Your task to perform on an android device: View the shopping cart on ebay. Add "beats solo 3" to the cart on ebay, then select checkout. Image 0: 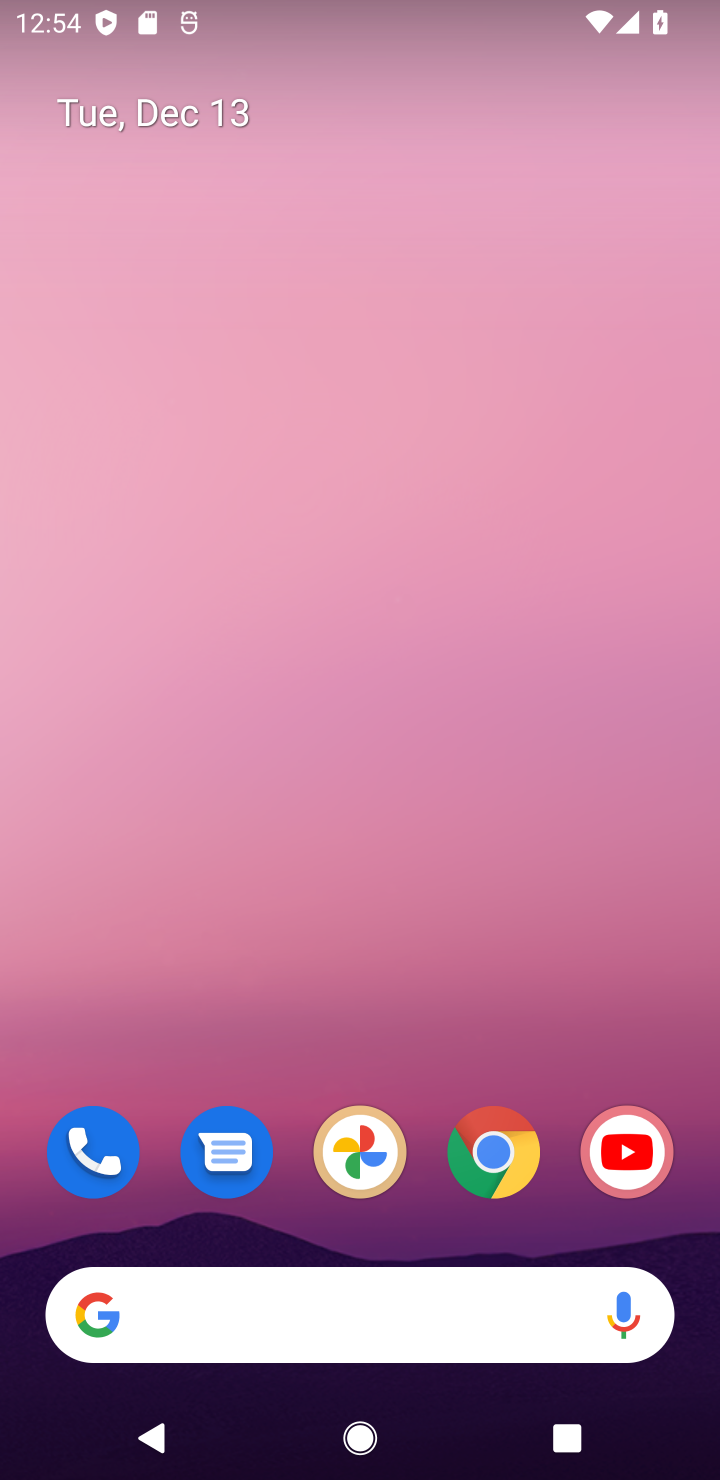
Step 0: drag from (277, 904) to (367, 278)
Your task to perform on an android device: View the shopping cart on ebay. Add "beats solo 3" to the cart on ebay, then select checkout. Image 1: 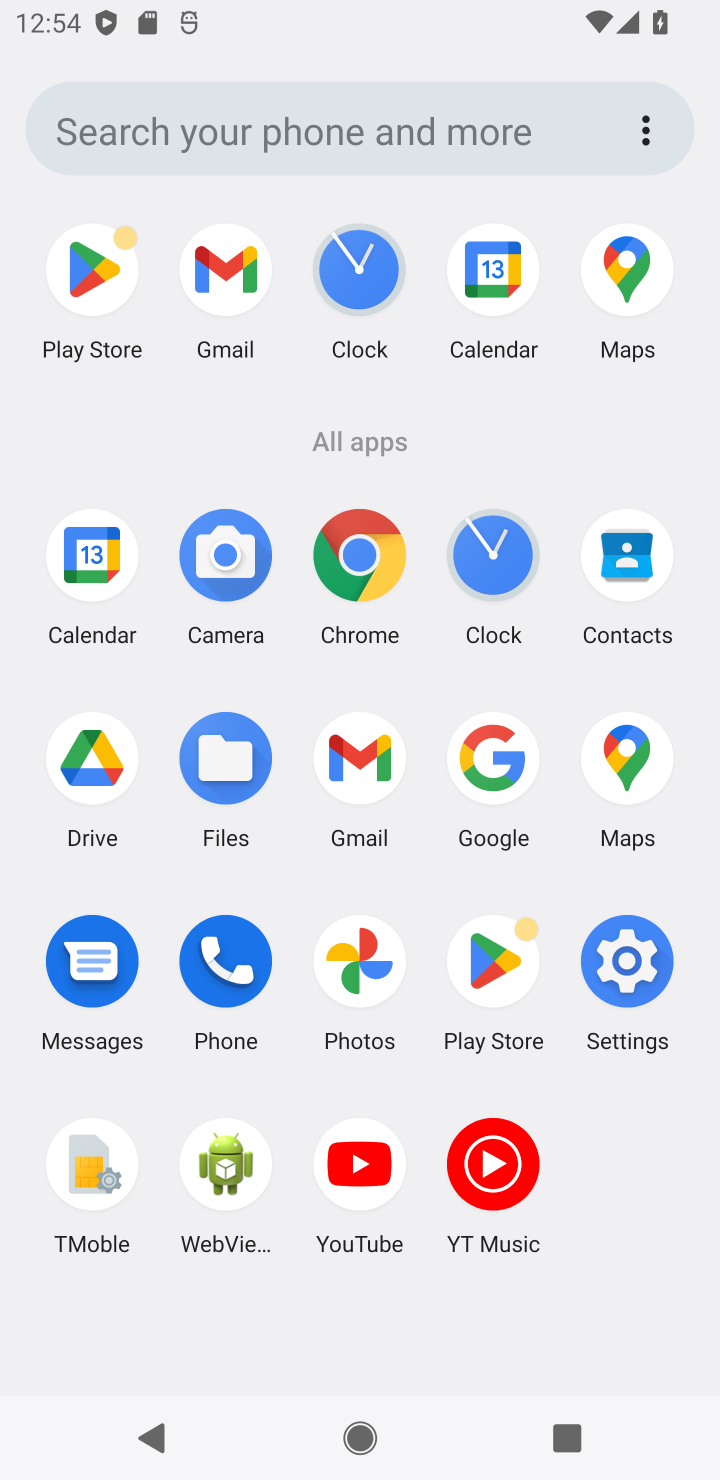
Step 1: click (473, 776)
Your task to perform on an android device: View the shopping cart on ebay. Add "beats solo 3" to the cart on ebay, then select checkout. Image 2: 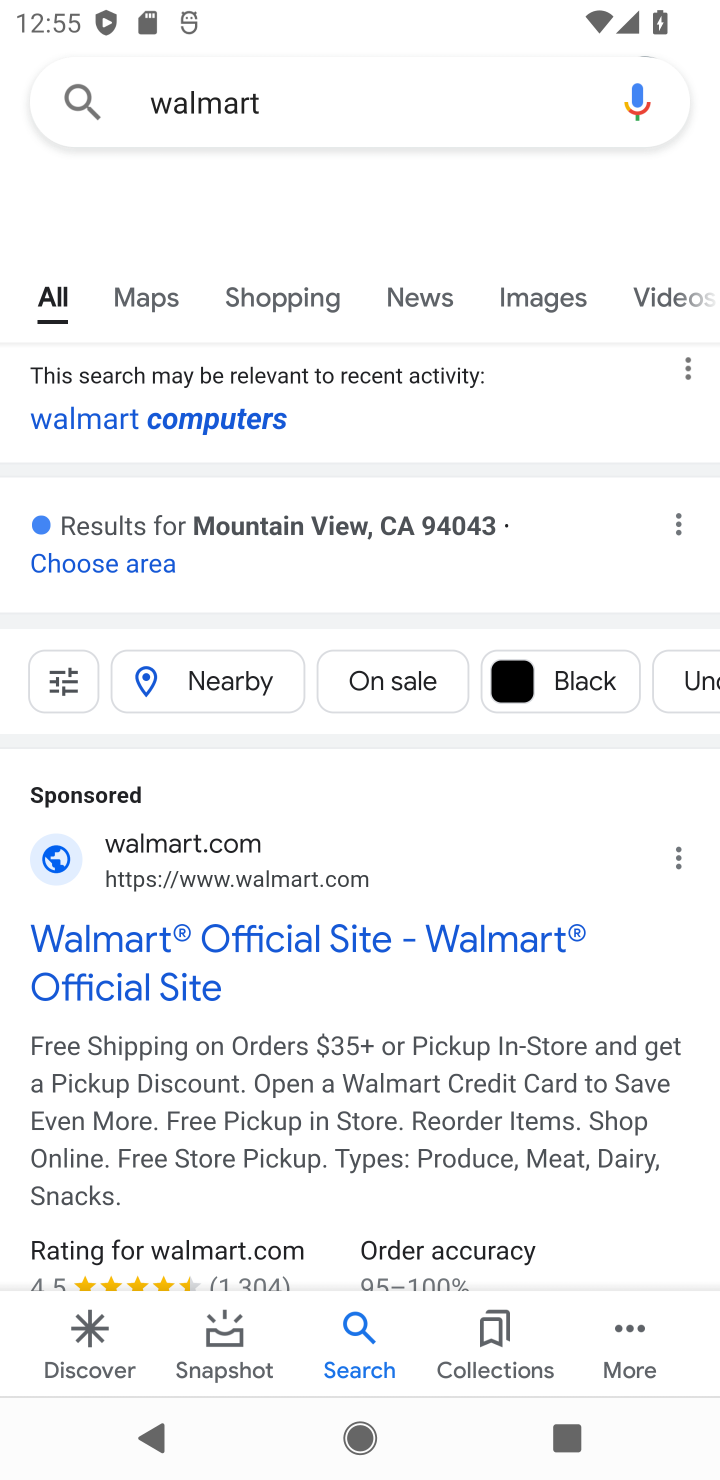
Step 2: click (217, 92)
Your task to perform on an android device: View the shopping cart on ebay. Add "beats solo 3" to the cart on ebay, then select checkout. Image 3: 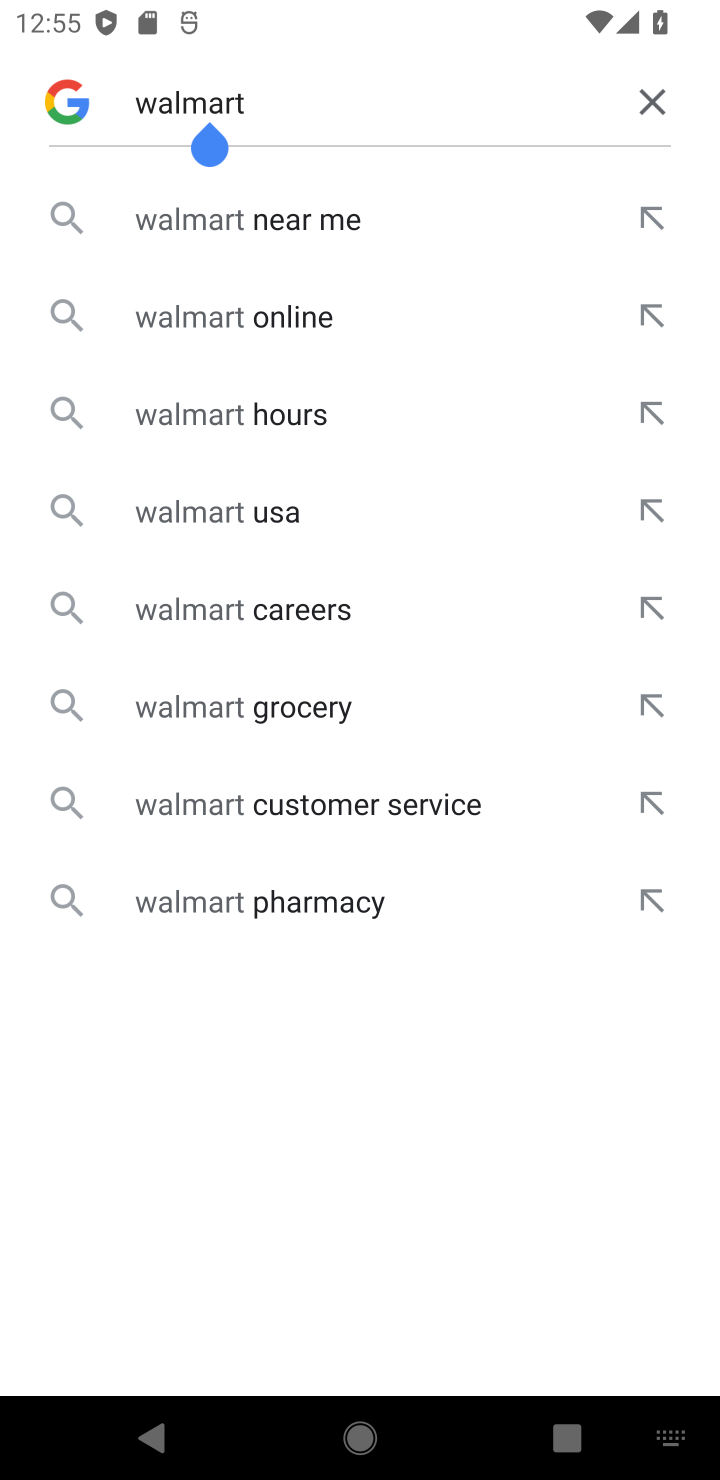
Step 3: click (651, 105)
Your task to perform on an android device: View the shopping cart on ebay. Add "beats solo 3" to the cart on ebay, then select checkout. Image 4: 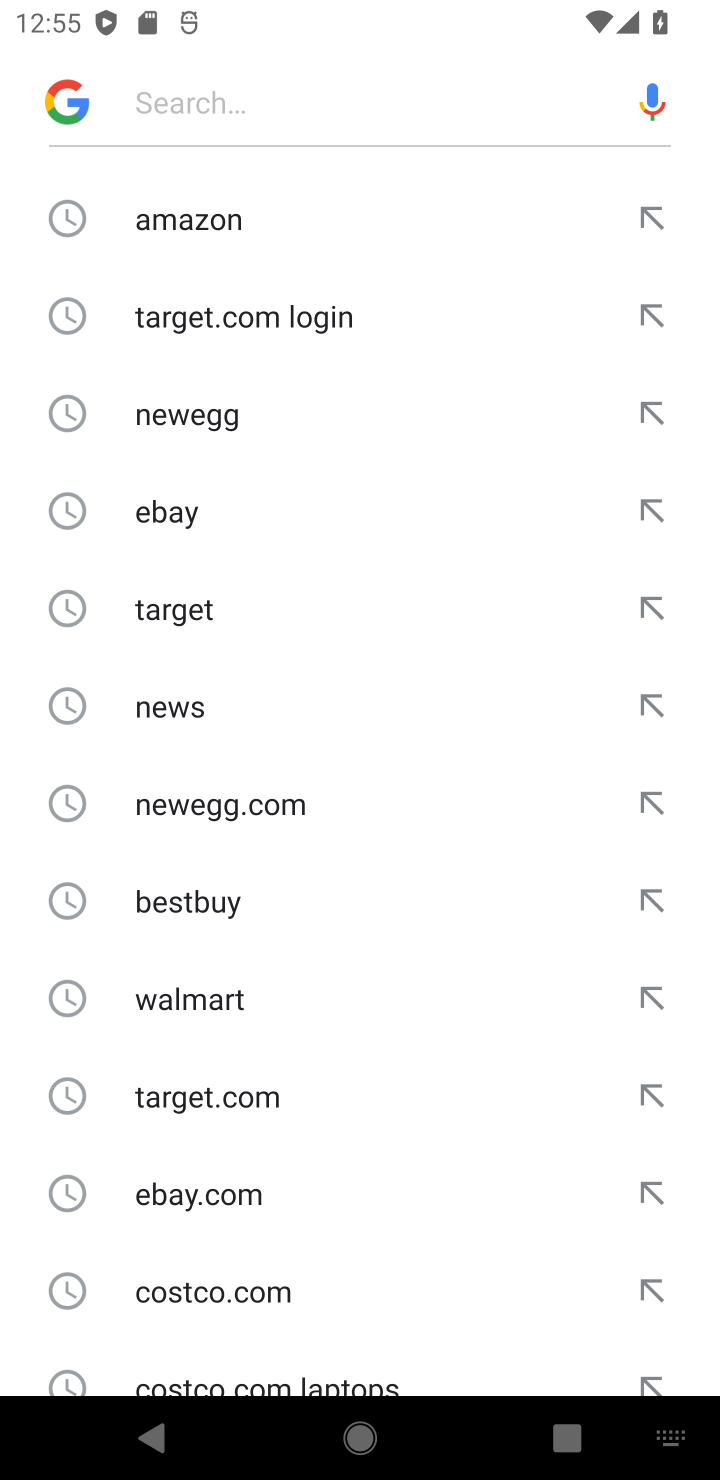
Step 4: click (161, 514)
Your task to perform on an android device: View the shopping cart on ebay. Add "beats solo 3" to the cart on ebay, then select checkout. Image 5: 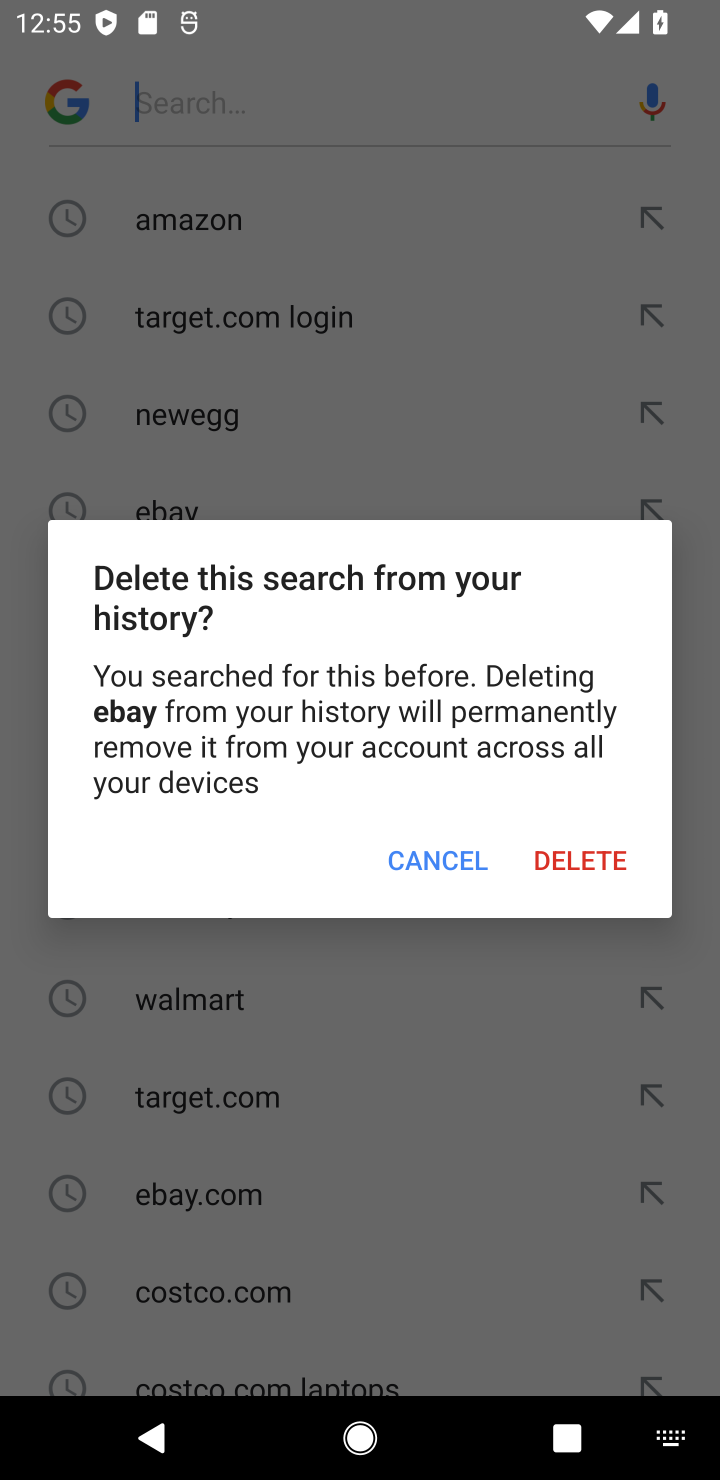
Step 5: click (434, 869)
Your task to perform on an android device: View the shopping cart on ebay. Add "beats solo 3" to the cart on ebay, then select checkout. Image 6: 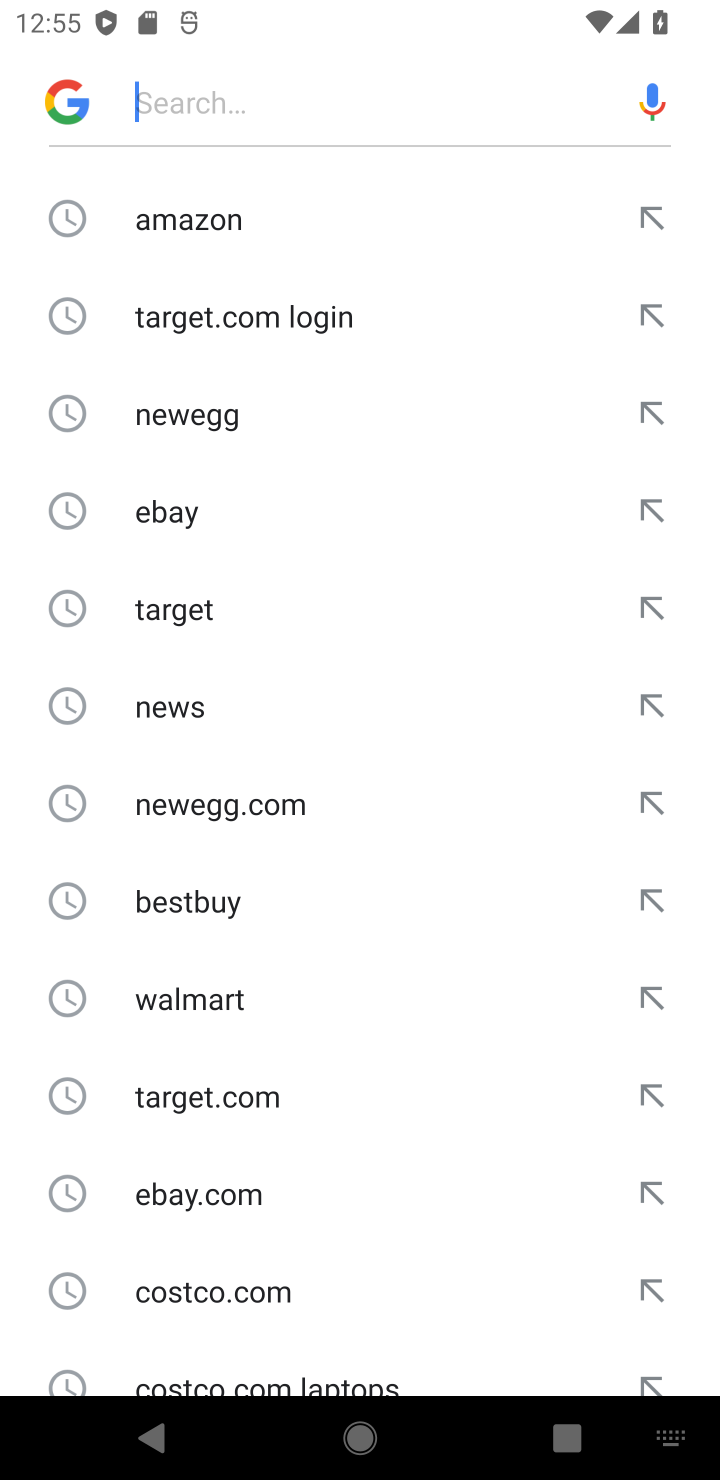
Step 6: click (191, 510)
Your task to perform on an android device: View the shopping cart on ebay. Add "beats solo 3" to the cart on ebay, then select checkout. Image 7: 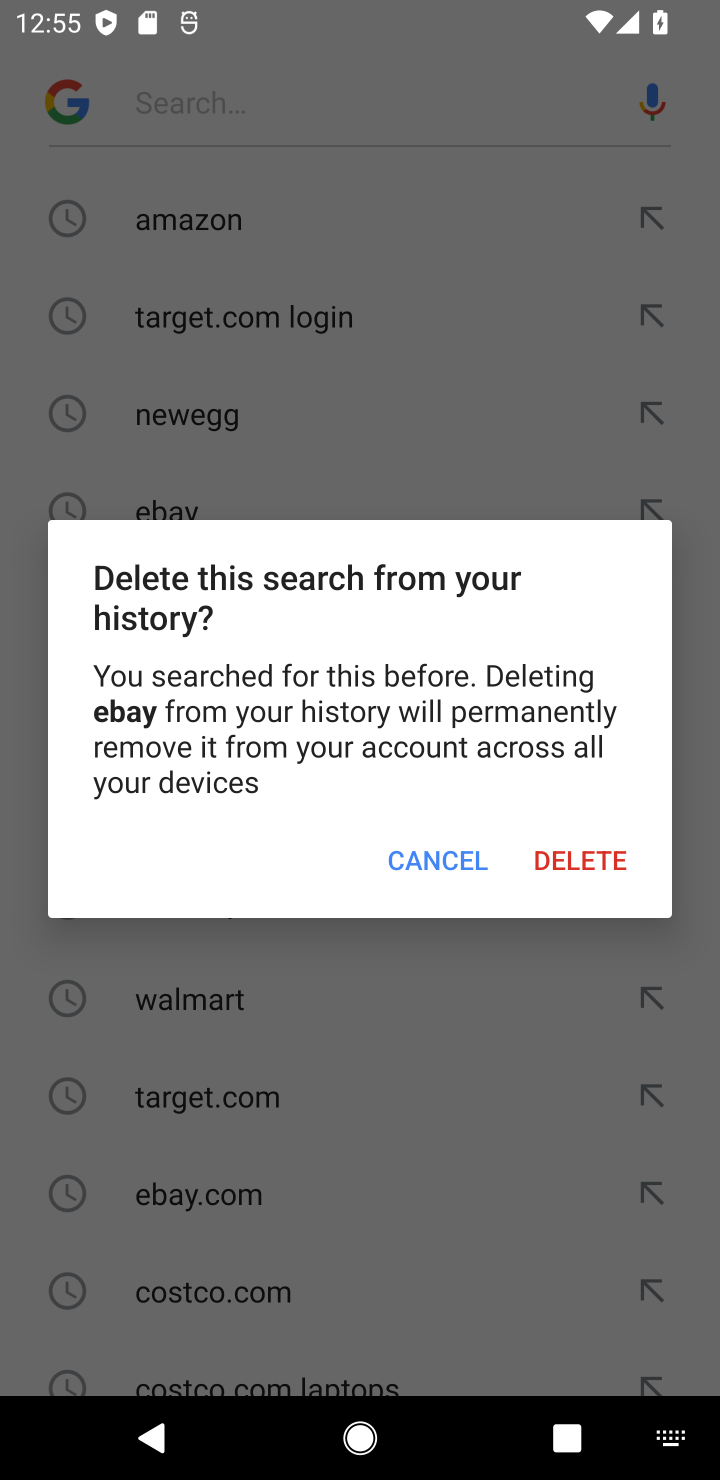
Step 7: click (410, 855)
Your task to perform on an android device: View the shopping cart on ebay. Add "beats solo 3" to the cart on ebay, then select checkout. Image 8: 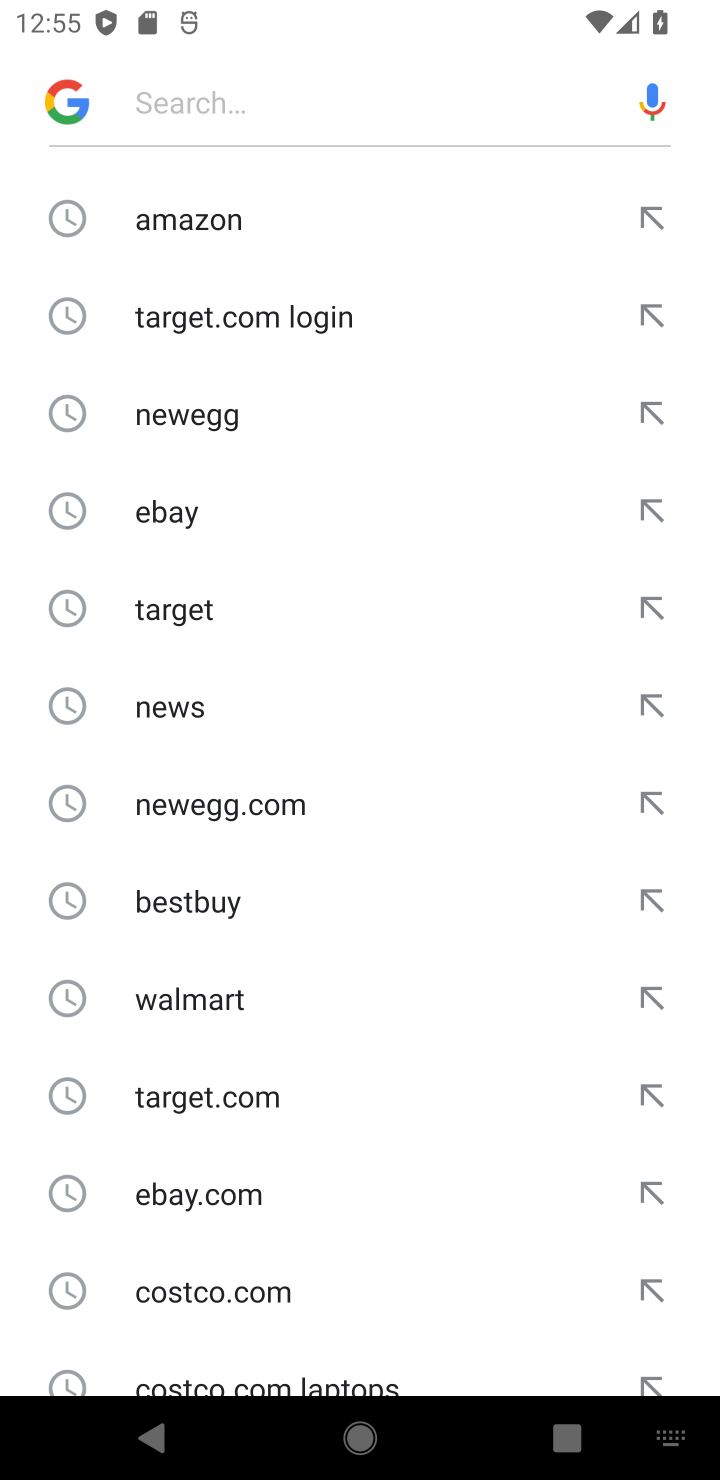
Step 8: click (136, 519)
Your task to perform on an android device: View the shopping cart on ebay. Add "beats solo 3" to the cart on ebay, then select checkout. Image 9: 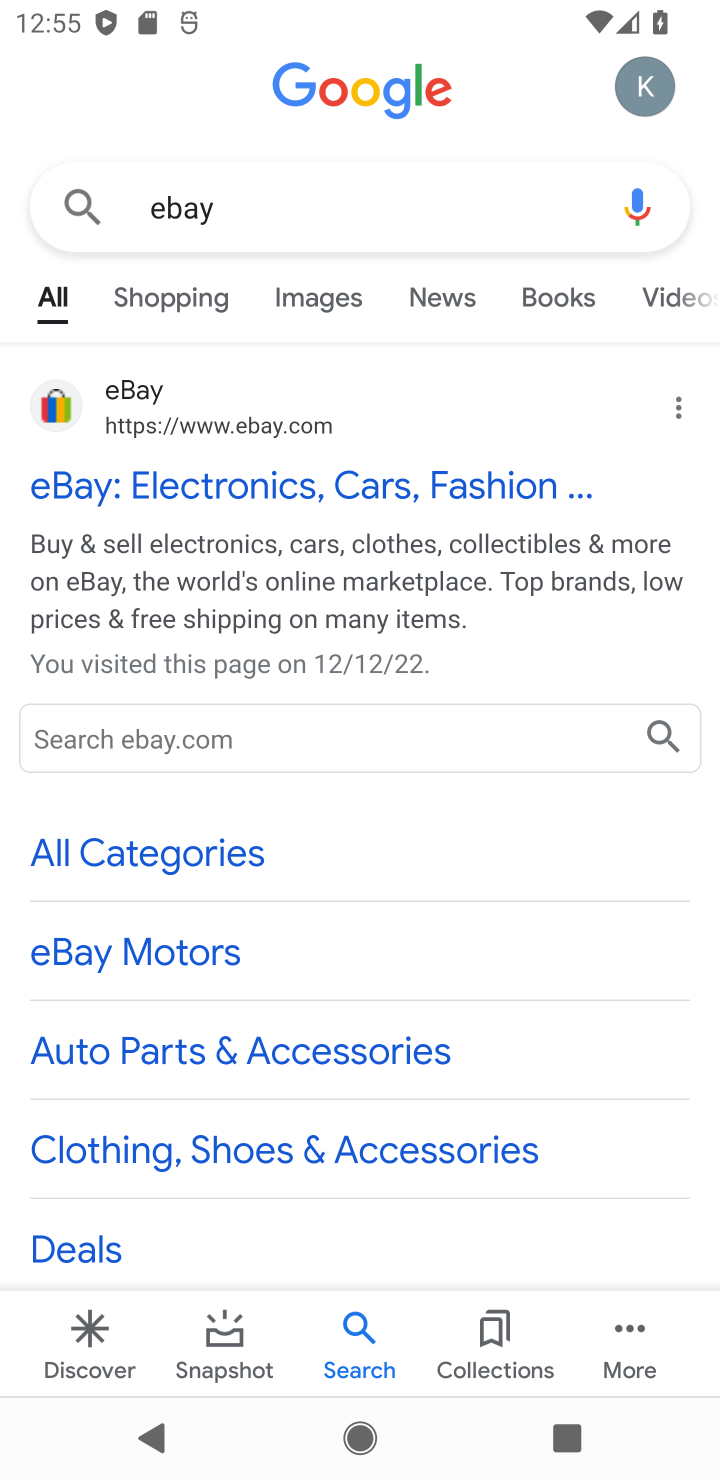
Step 9: click (123, 496)
Your task to perform on an android device: View the shopping cart on ebay. Add "beats solo 3" to the cart on ebay, then select checkout. Image 10: 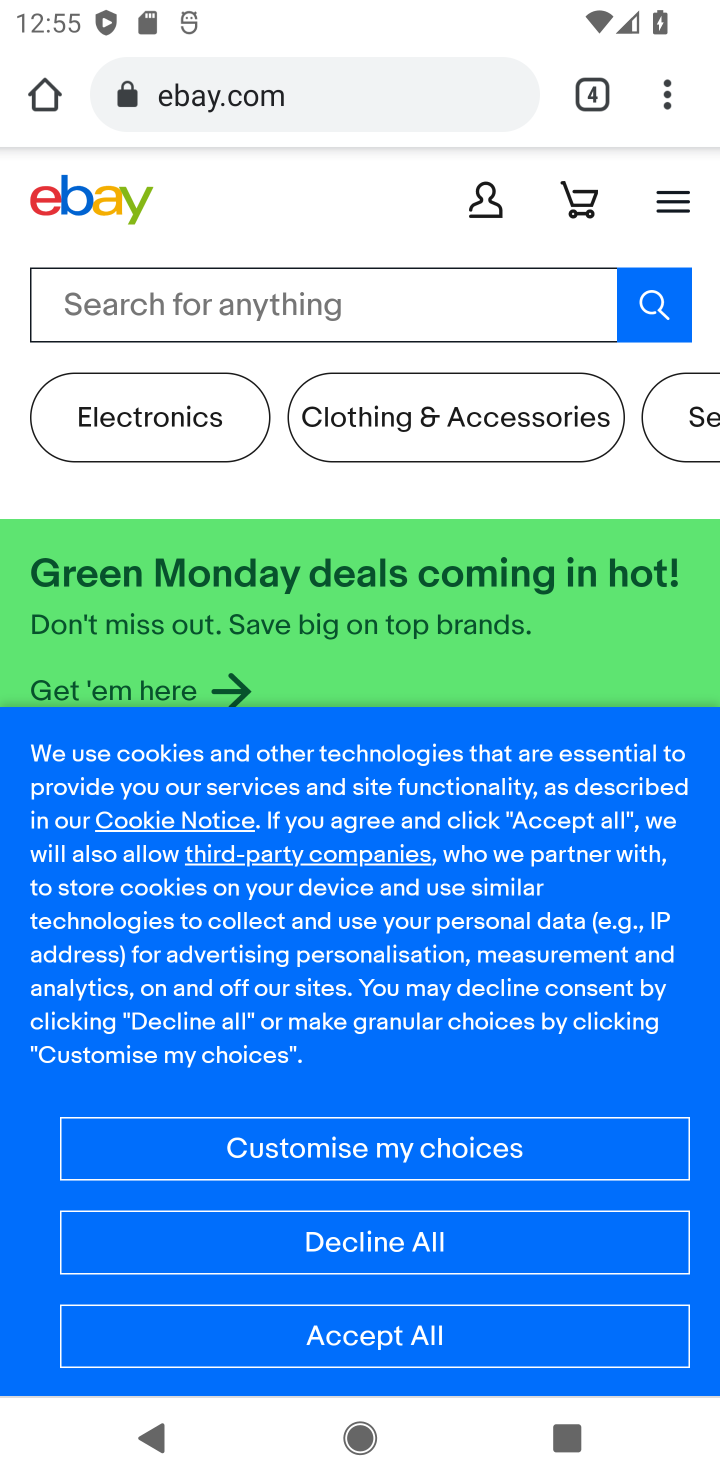
Step 10: click (213, 307)
Your task to perform on an android device: View the shopping cart on ebay. Add "beats solo 3" to the cart on ebay, then select checkout. Image 11: 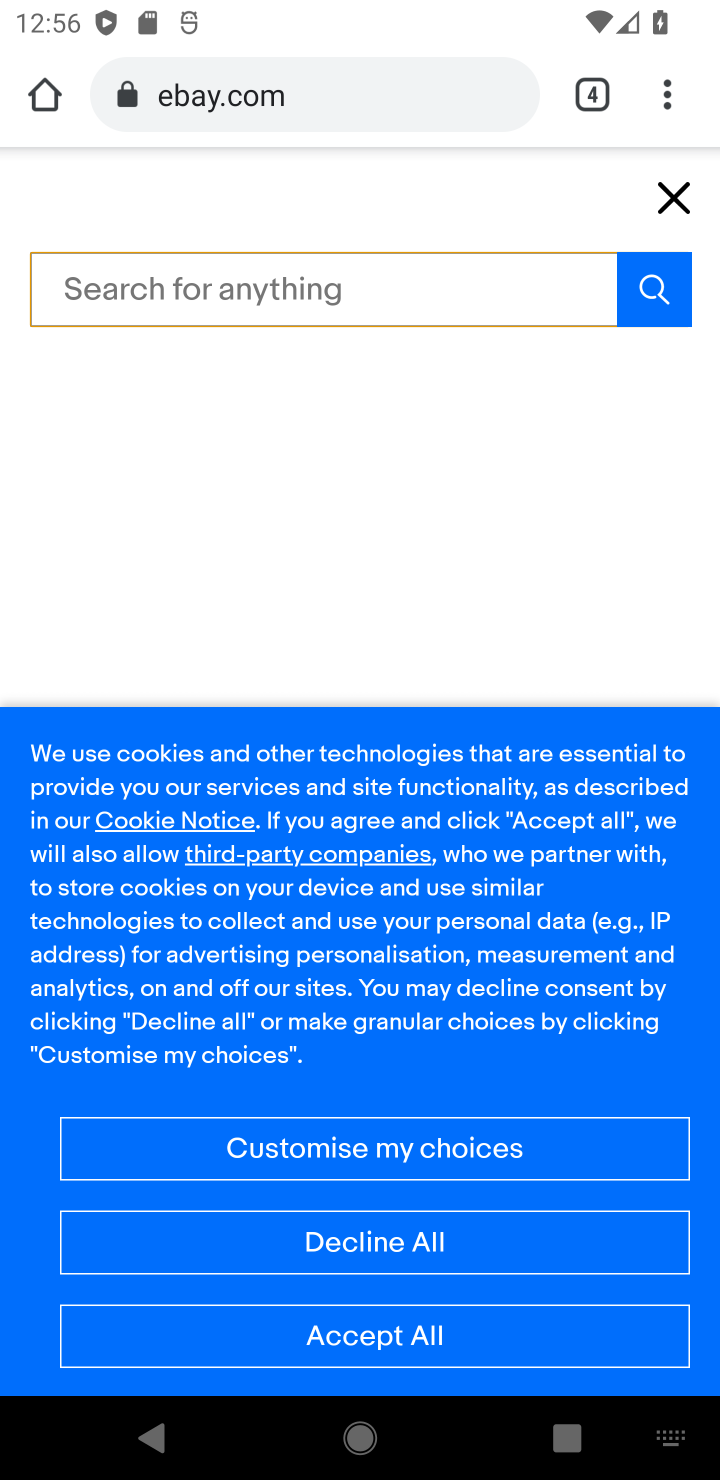
Step 11: type "beats solo 3"
Your task to perform on an android device: View the shopping cart on ebay. Add "beats solo 3" to the cart on ebay, then select checkout. Image 12: 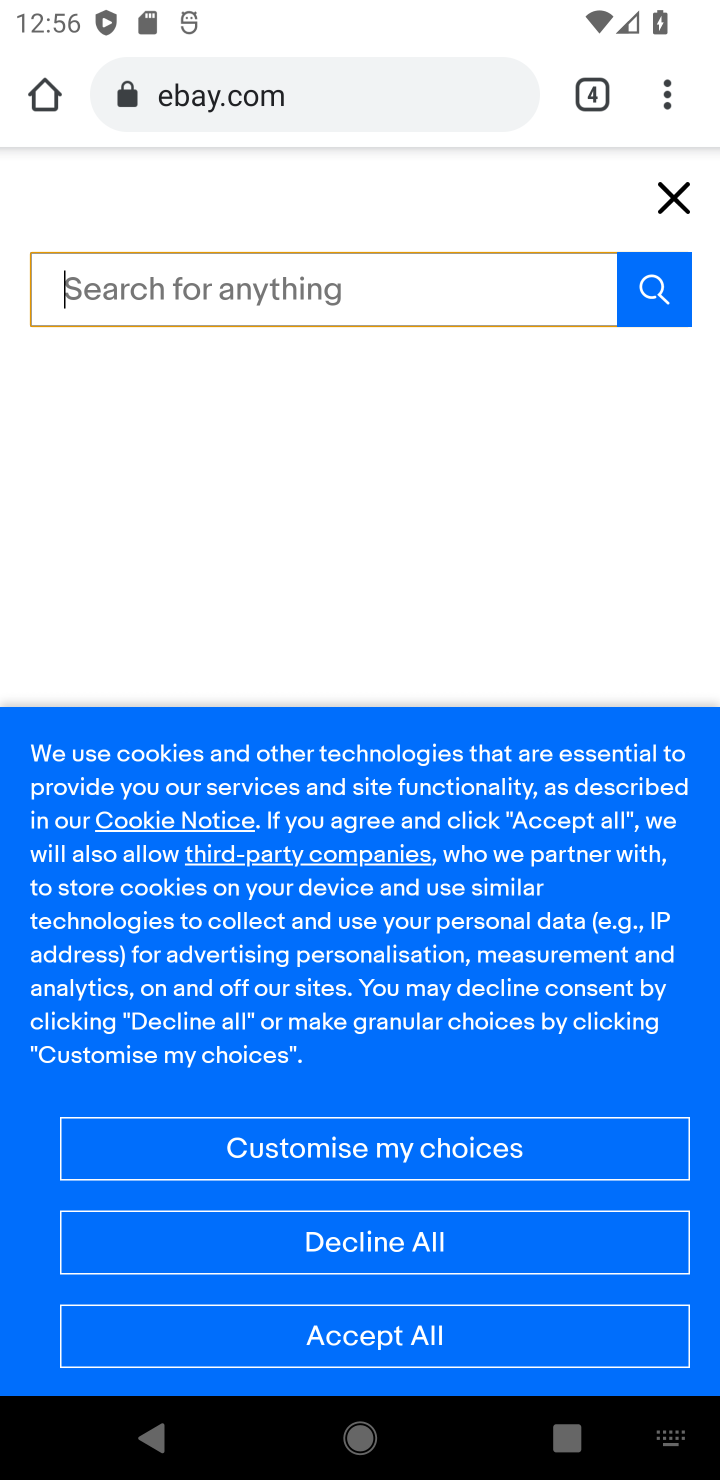
Step 12: click (635, 295)
Your task to perform on an android device: View the shopping cart on ebay. Add "beats solo 3" to the cart on ebay, then select checkout. Image 13: 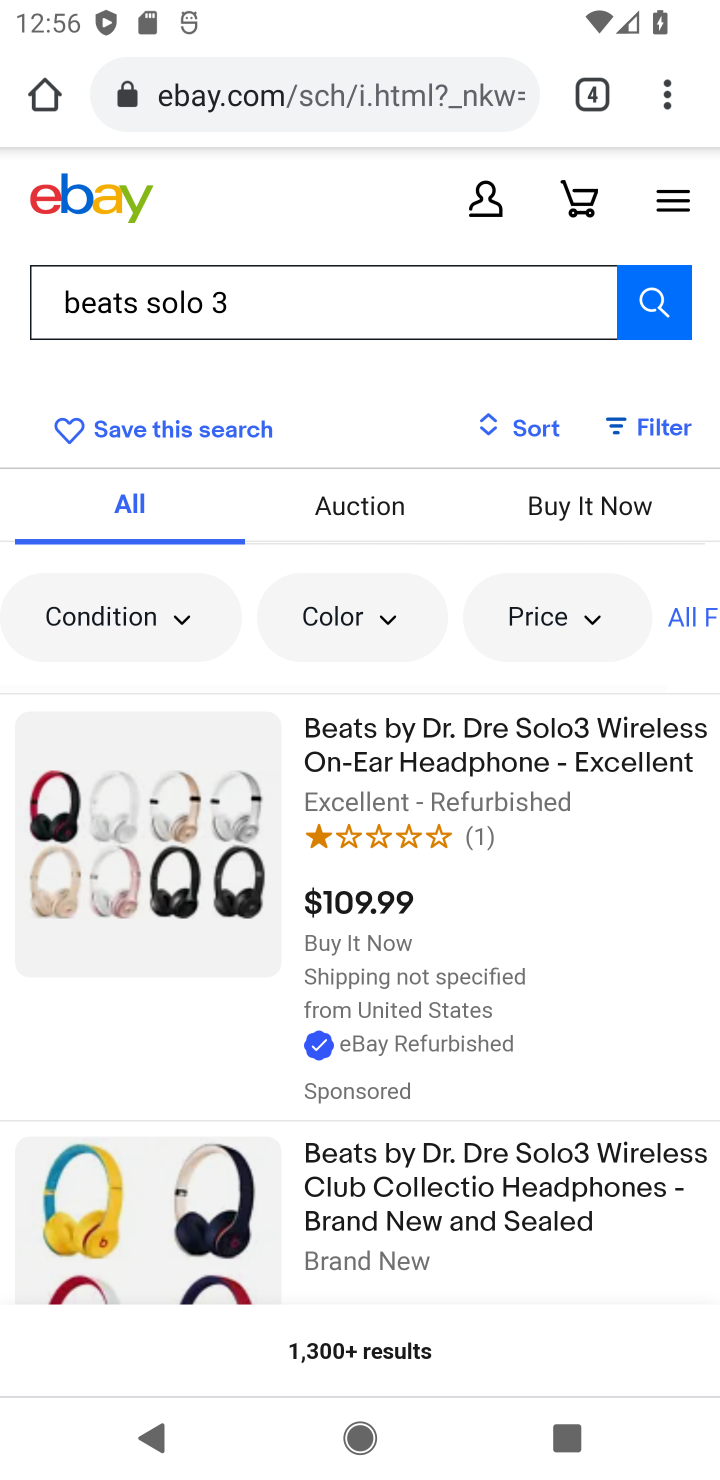
Step 13: click (460, 776)
Your task to perform on an android device: View the shopping cart on ebay. Add "beats solo 3" to the cart on ebay, then select checkout. Image 14: 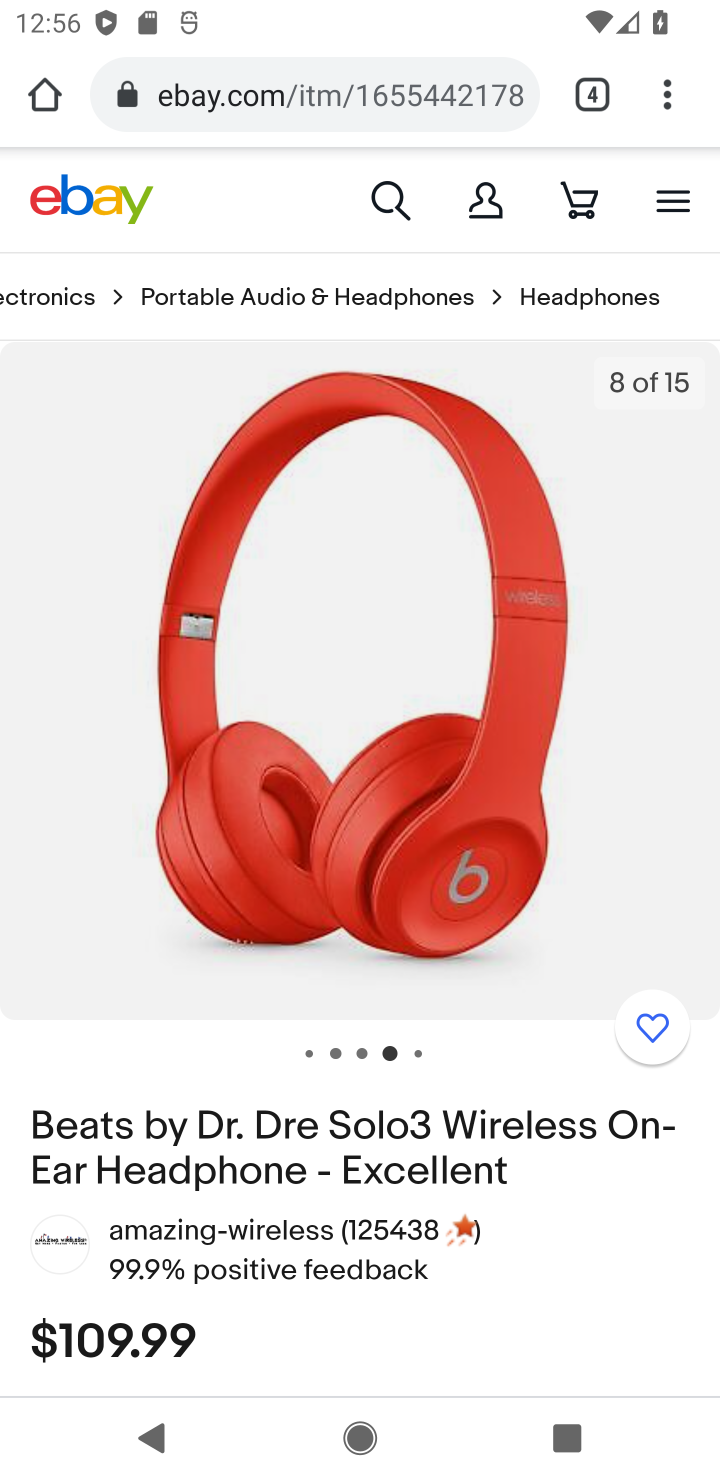
Step 14: drag from (466, 1207) to (418, 650)
Your task to perform on an android device: View the shopping cart on ebay. Add "beats solo 3" to the cart on ebay, then select checkout. Image 15: 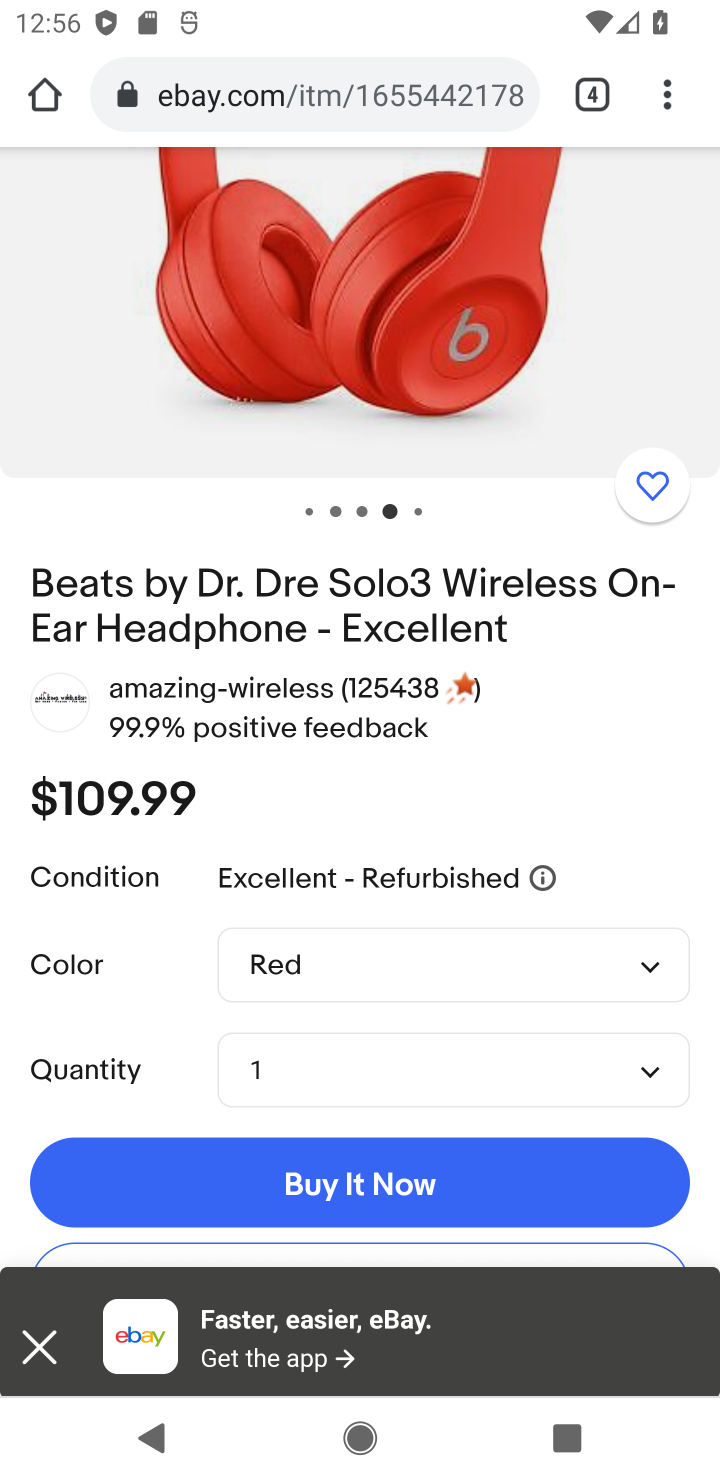
Step 15: drag from (414, 1042) to (418, 613)
Your task to perform on an android device: View the shopping cart on ebay. Add "beats solo 3" to the cart on ebay, then select checkout. Image 16: 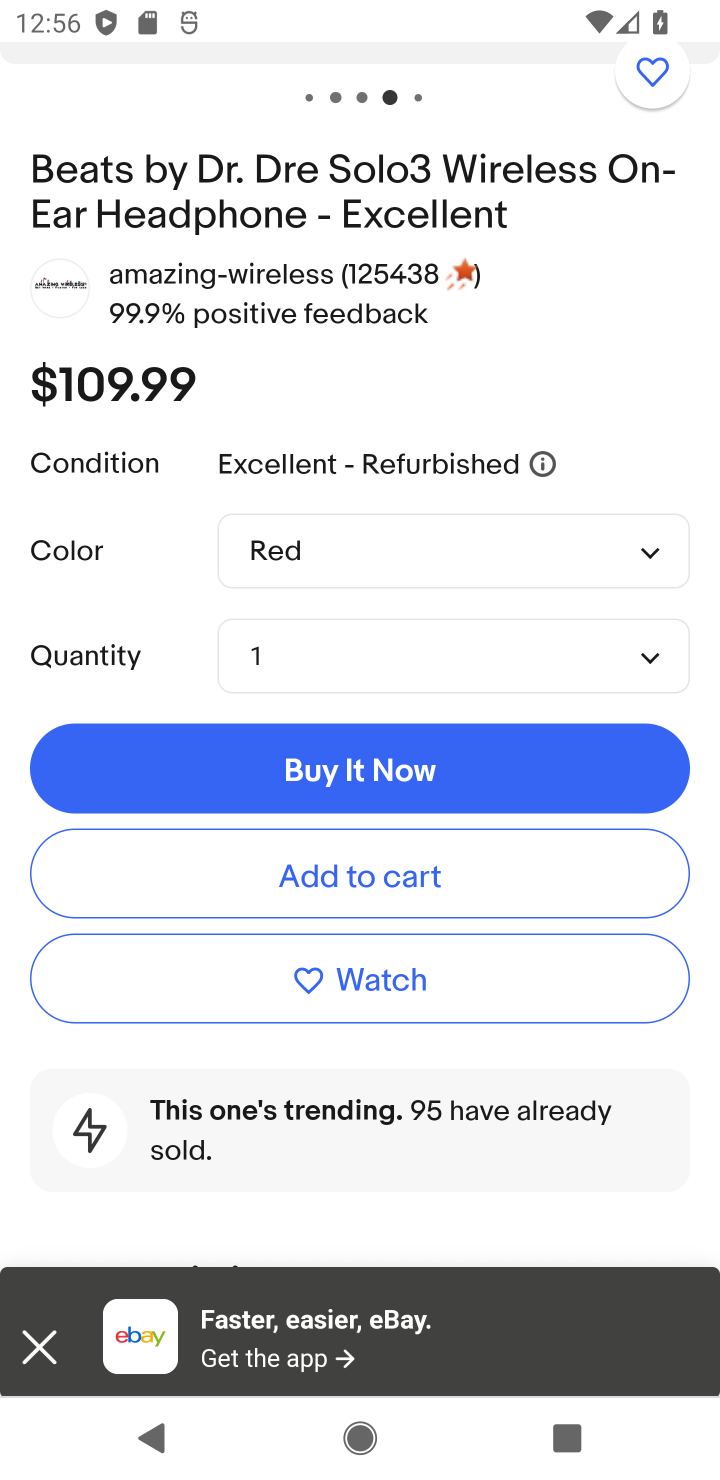
Step 16: click (403, 869)
Your task to perform on an android device: View the shopping cart on ebay. Add "beats solo 3" to the cart on ebay, then select checkout. Image 17: 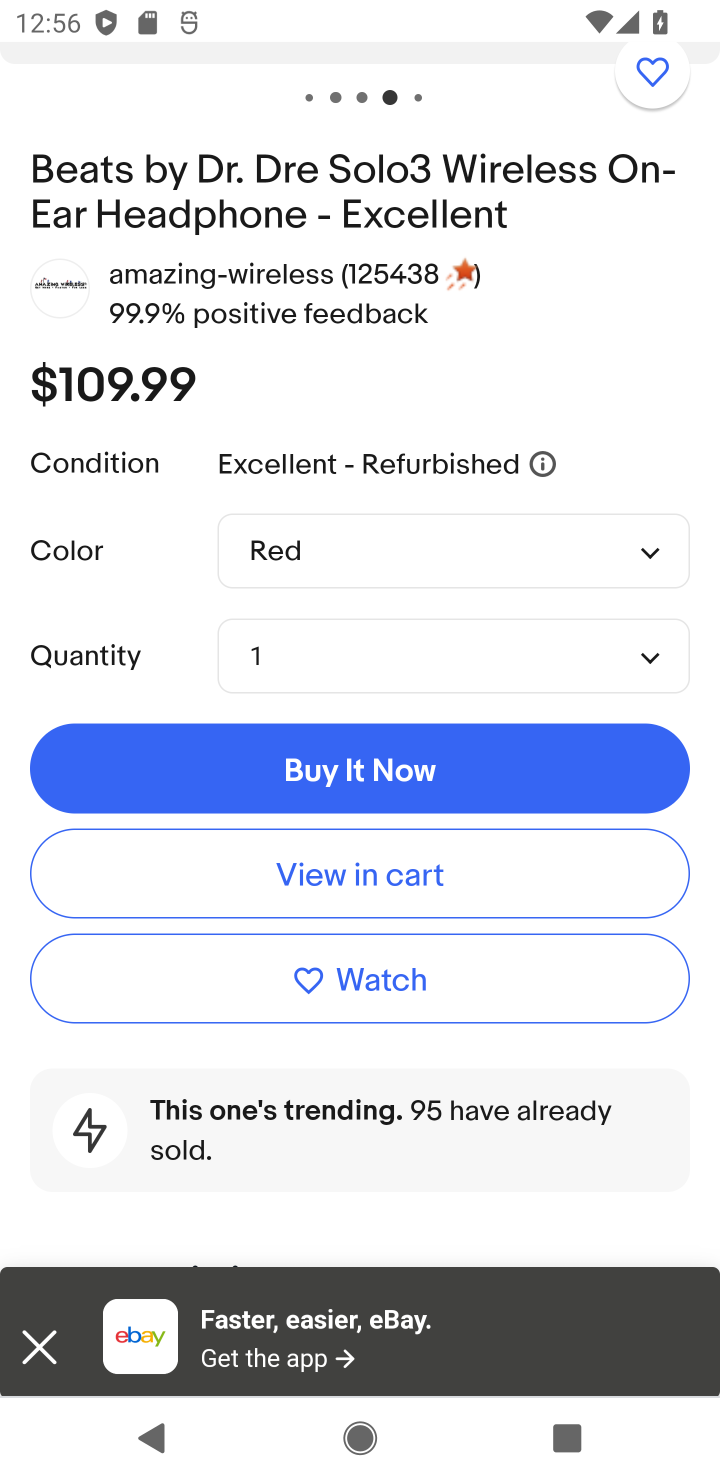
Step 17: click (359, 868)
Your task to perform on an android device: View the shopping cart on ebay. Add "beats solo 3" to the cart on ebay, then select checkout. Image 18: 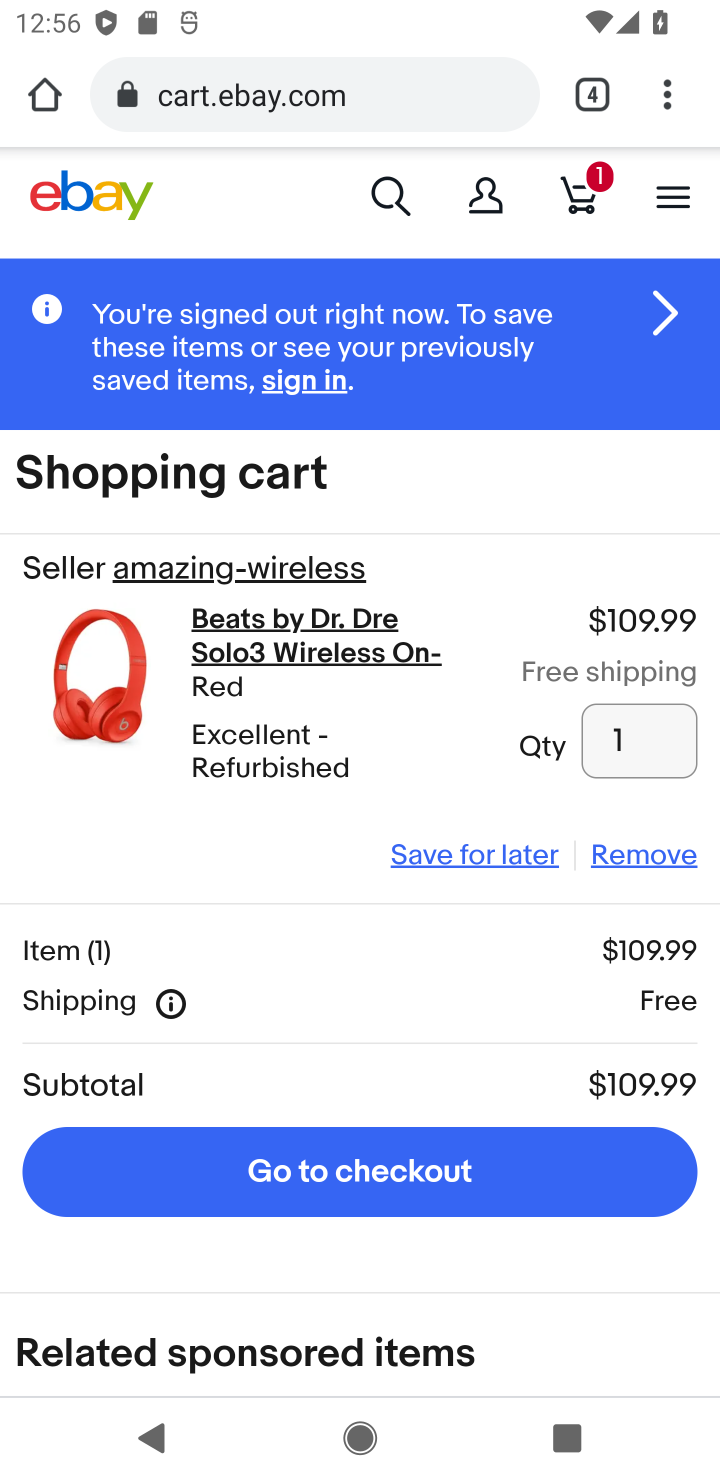
Step 18: click (381, 1198)
Your task to perform on an android device: View the shopping cart on ebay. Add "beats solo 3" to the cart on ebay, then select checkout. Image 19: 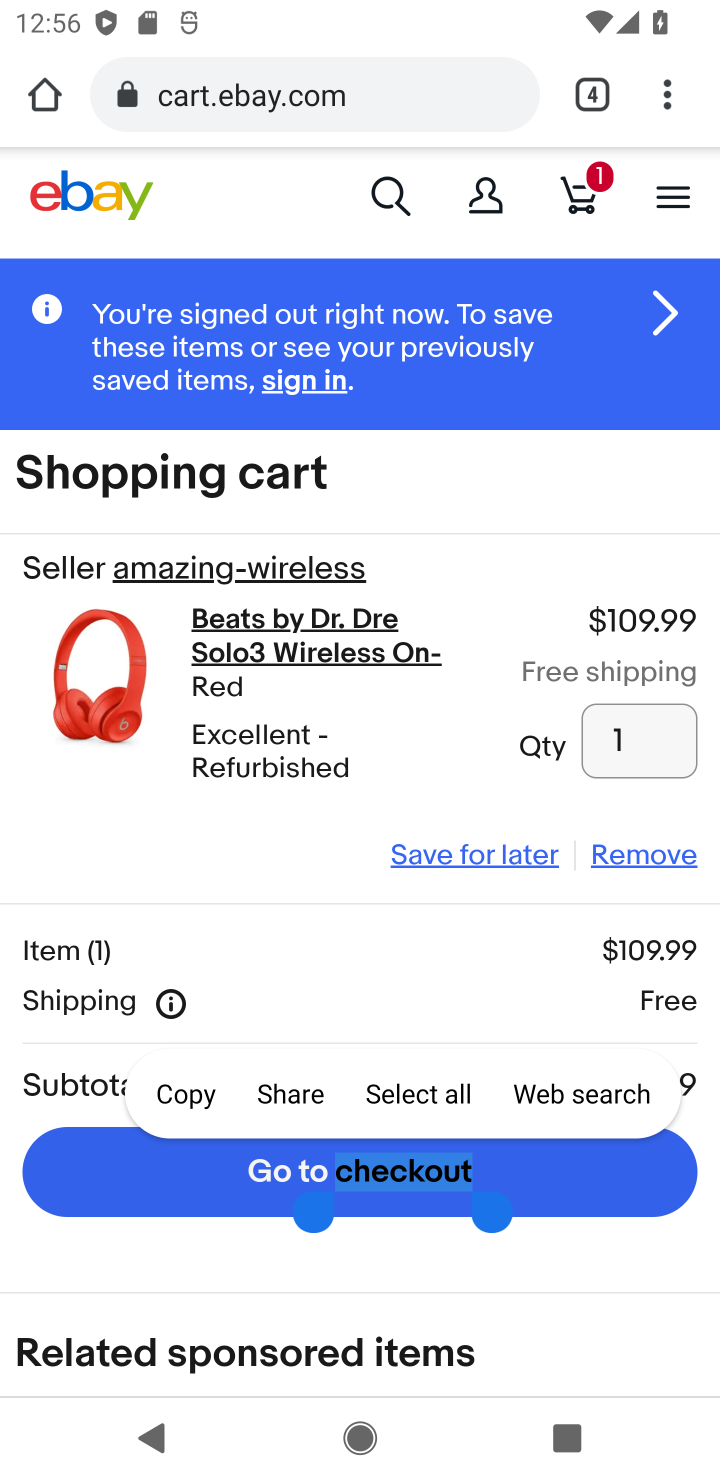
Step 19: task complete